Your task to perform on an android device: turn vacation reply on in the gmail app Image 0: 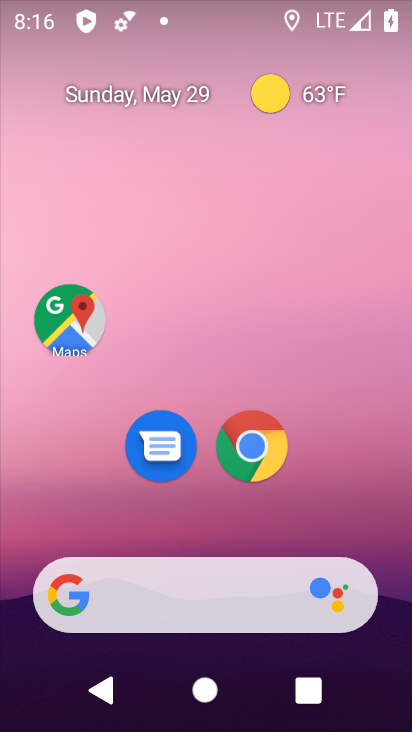
Step 0: drag from (209, 540) to (211, 189)
Your task to perform on an android device: turn vacation reply on in the gmail app Image 1: 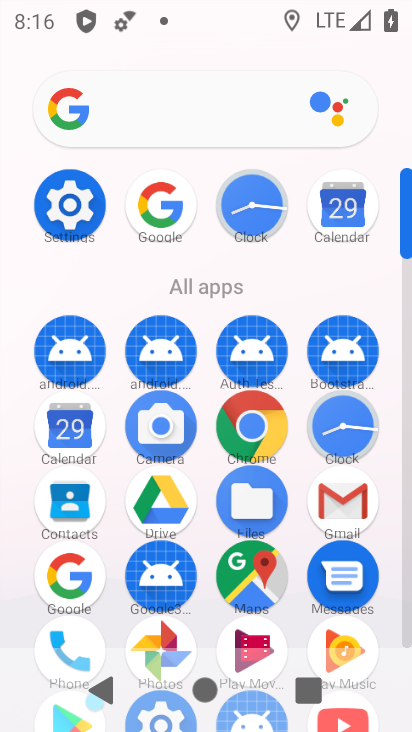
Step 1: drag from (201, 447) to (192, 229)
Your task to perform on an android device: turn vacation reply on in the gmail app Image 2: 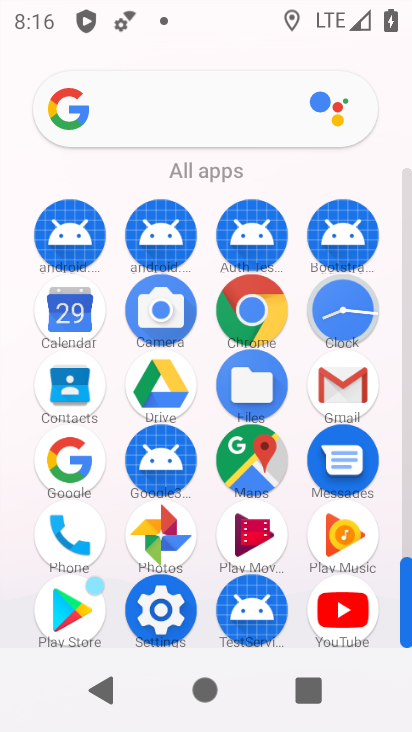
Step 2: click (316, 377)
Your task to perform on an android device: turn vacation reply on in the gmail app Image 3: 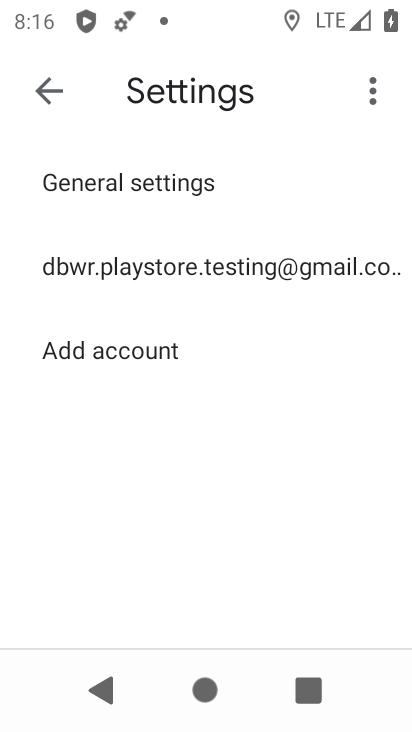
Step 3: click (158, 272)
Your task to perform on an android device: turn vacation reply on in the gmail app Image 4: 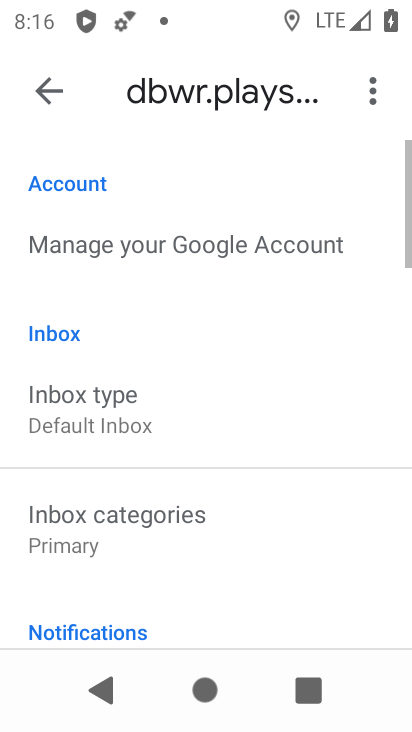
Step 4: drag from (207, 498) to (233, 299)
Your task to perform on an android device: turn vacation reply on in the gmail app Image 5: 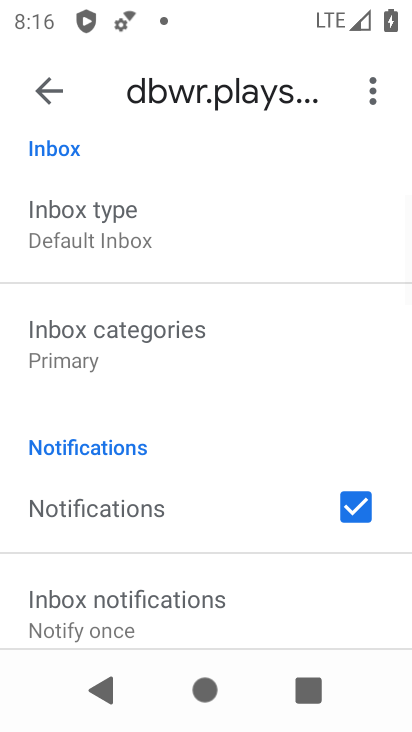
Step 5: drag from (212, 559) to (207, 281)
Your task to perform on an android device: turn vacation reply on in the gmail app Image 6: 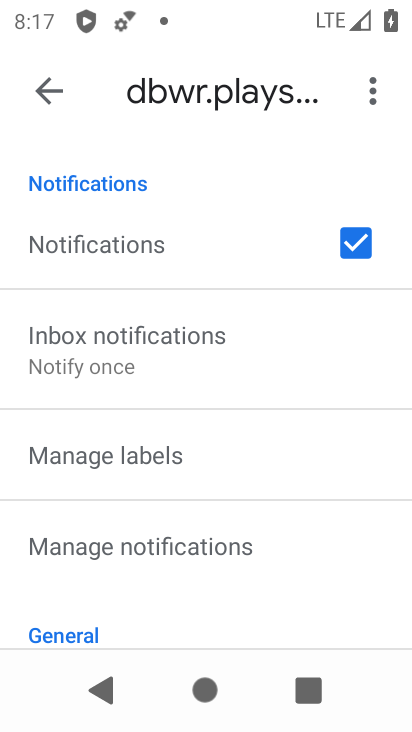
Step 6: drag from (250, 529) to (258, 213)
Your task to perform on an android device: turn vacation reply on in the gmail app Image 7: 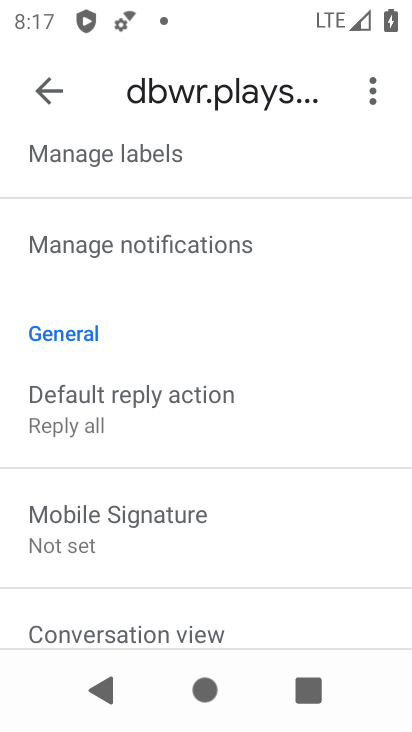
Step 7: drag from (253, 510) to (254, 303)
Your task to perform on an android device: turn vacation reply on in the gmail app Image 8: 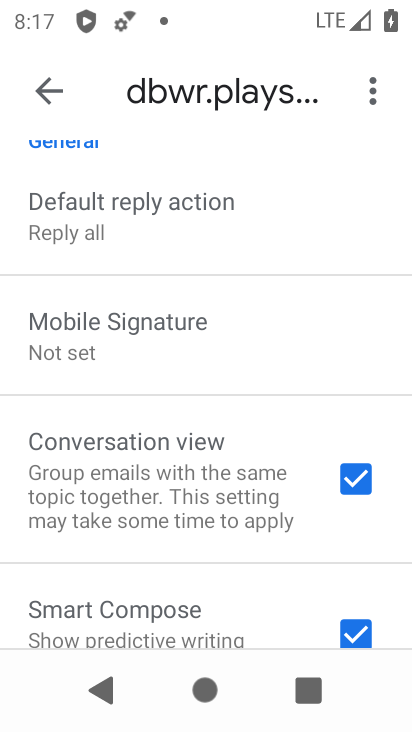
Step 8: drag from (246, 553) to (239, 220)
Your task to perform on an android device: turn vacation reply on in the gmail app Image 9: 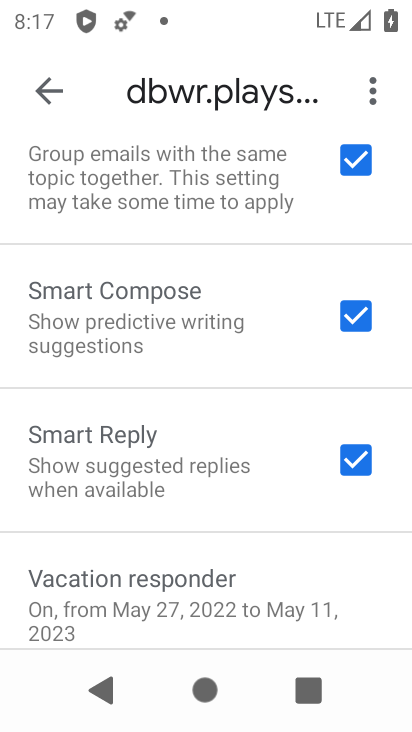
Step 9: click (223, 582)
Your task to perform on an android device: turn vacation reply on in the gmail app Image 10: 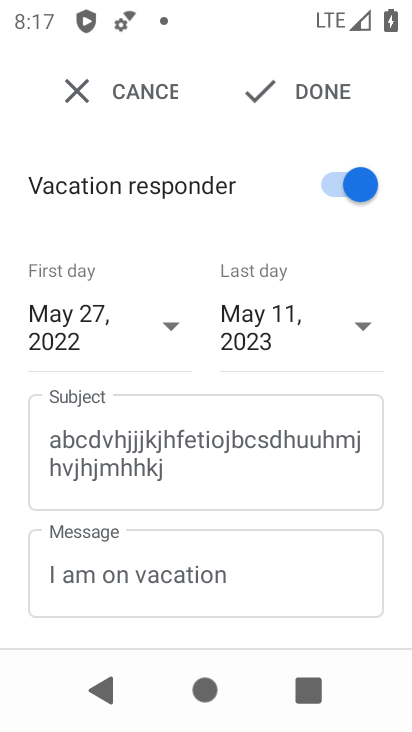
Step 10: task complete